Your task to perform on an android device: see sites visited before in the chrome app Image 0: 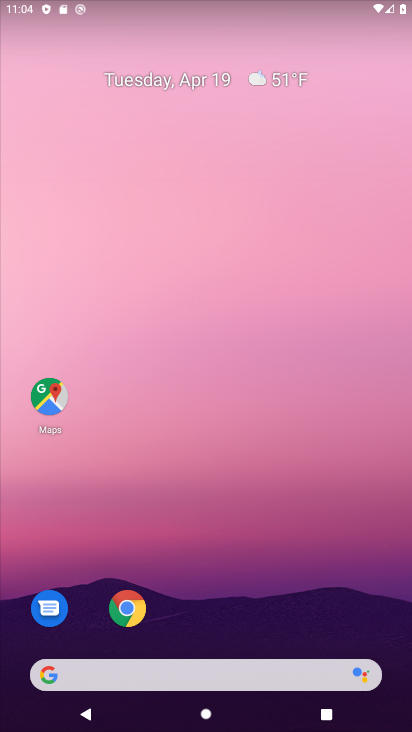
Step 0: drag from (375, 613) to (408, 467)
Your task to perform on an android device: see sites visited before in the chrome app Image 1: 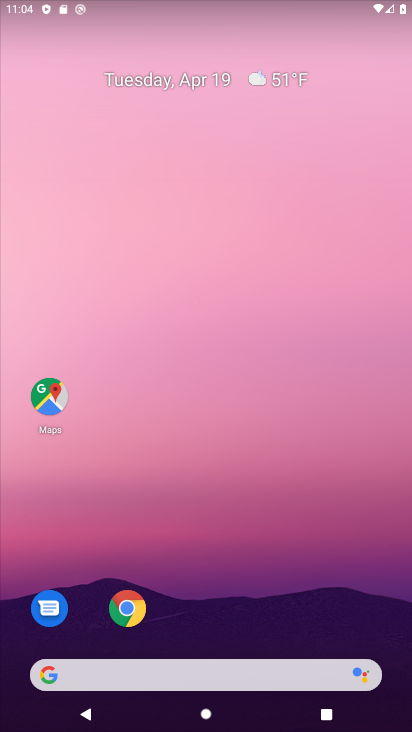
Step 1: drag from (281, 565) to (280, 5)
Your task to perform on an android device: see sites visited before in the chrome app Image 2: 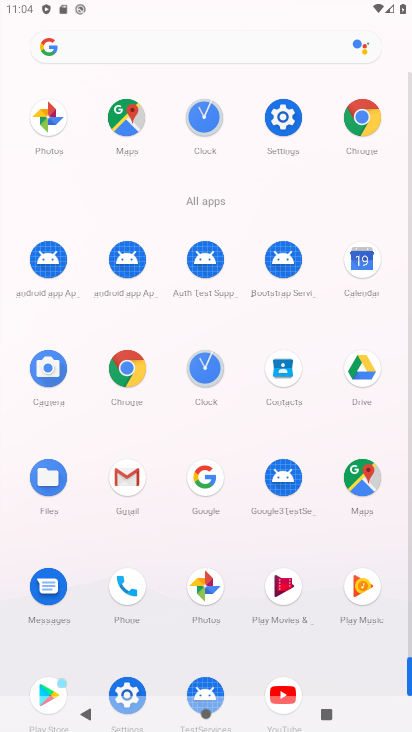
Step 2: click (368, 116)
Your task to perform on an android device: see sites visited before in the chrome app Image 3: 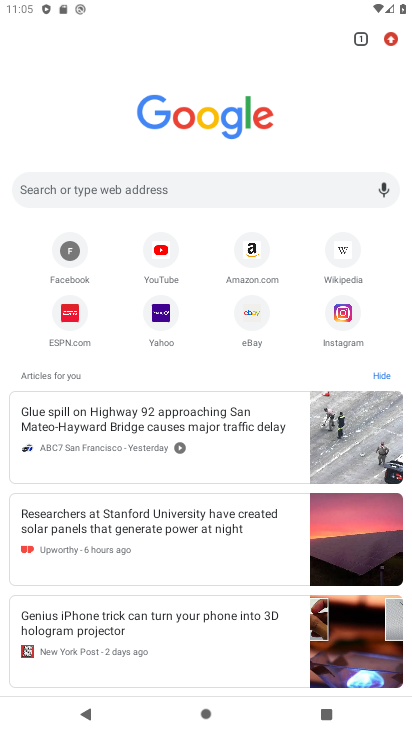
Step 3: click (388, 38)
Your task to perform on an android device: see sites visited before in the chrome app Image 4: 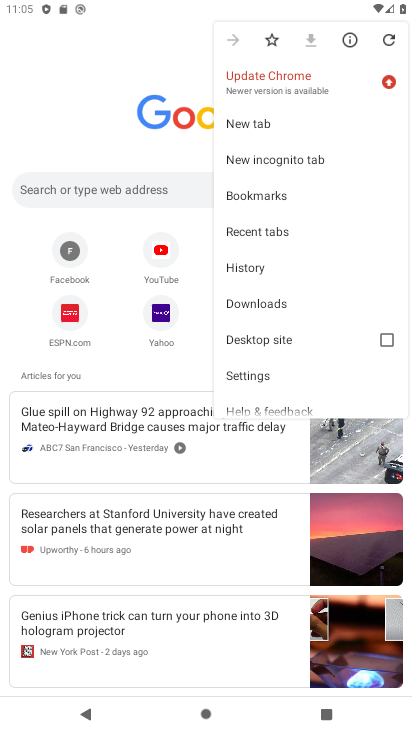
Step 4: click (258, 268)
Your task to perform on an android device: see sites visited before in the chrome app Image 5: 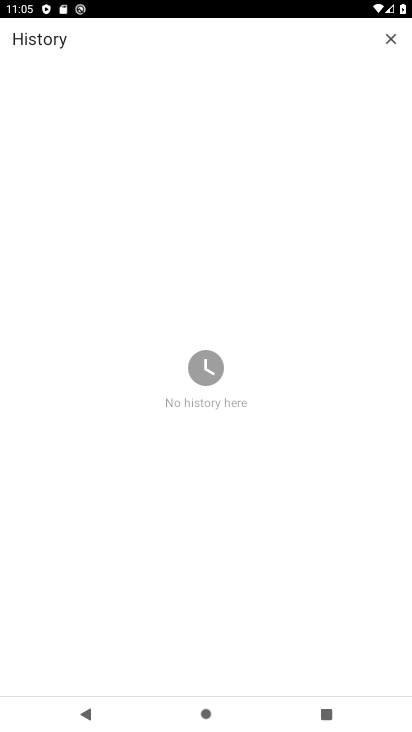
Step 5: task complete